Your task to perform on an android device: Clear the cart on costco.com. Image 0: 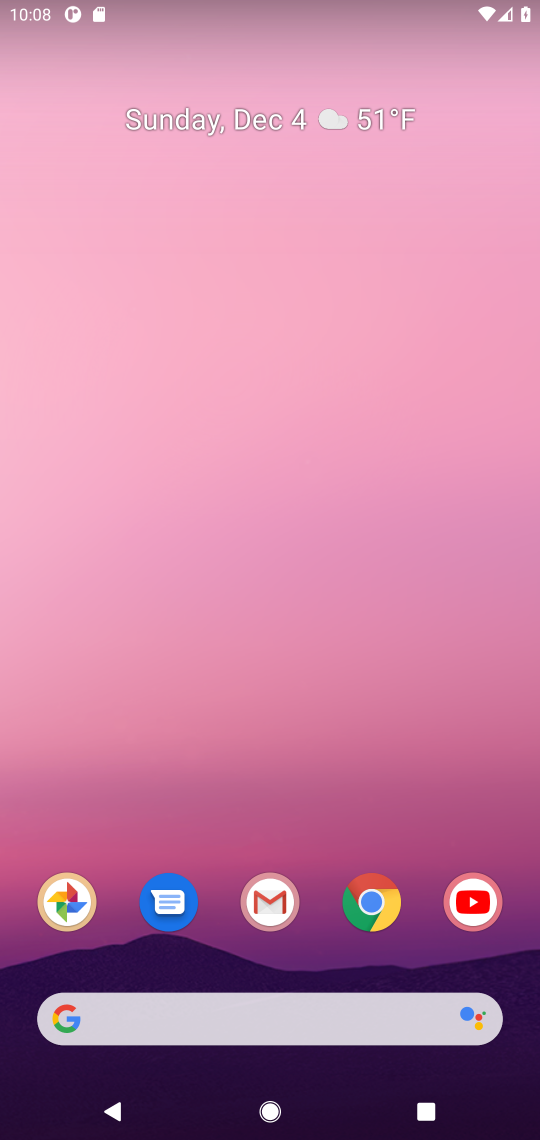
Step 0: click (351, 903)
Your task to perform on an android device: Clear the cart on costco.com. Image 1: 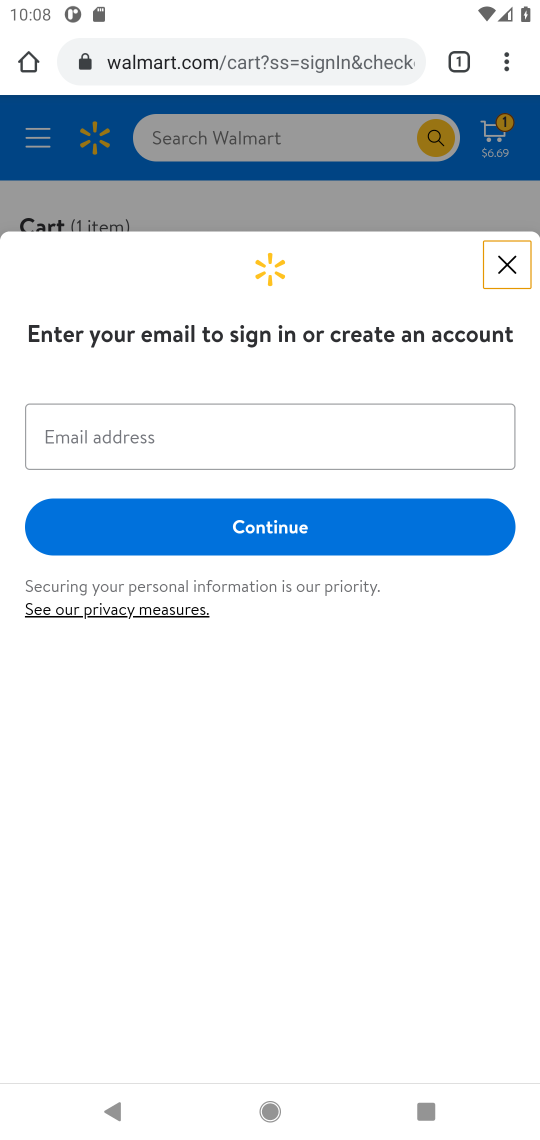
Step 1: click (244, 62)
Your task to perform on an android device: Clear the cart on costco.com. Image 2: 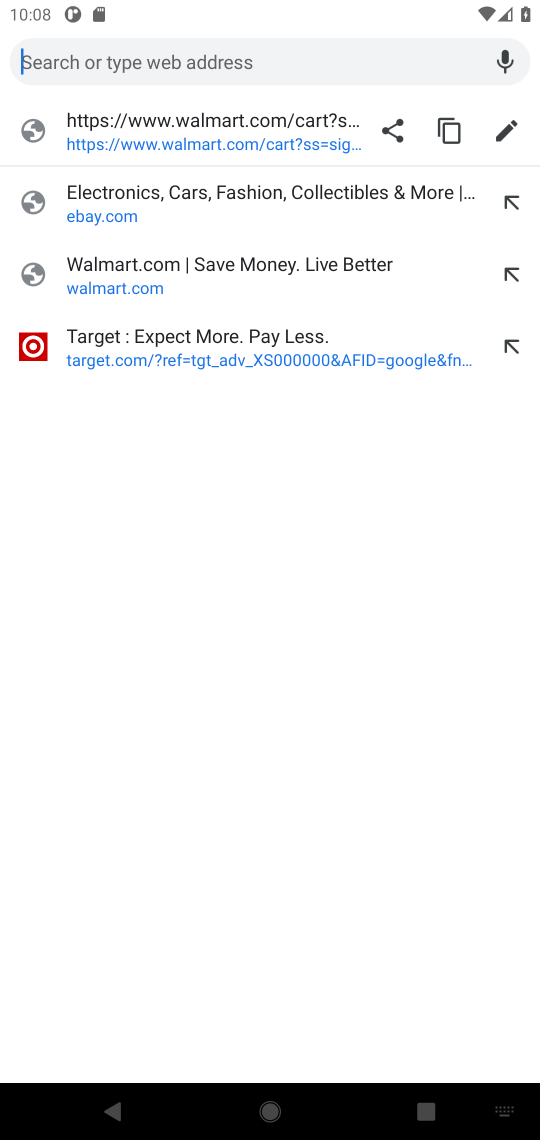
Step 2: type "costco"
Your task to perform on an android device: Clear the cart on costco.com. Image 3: 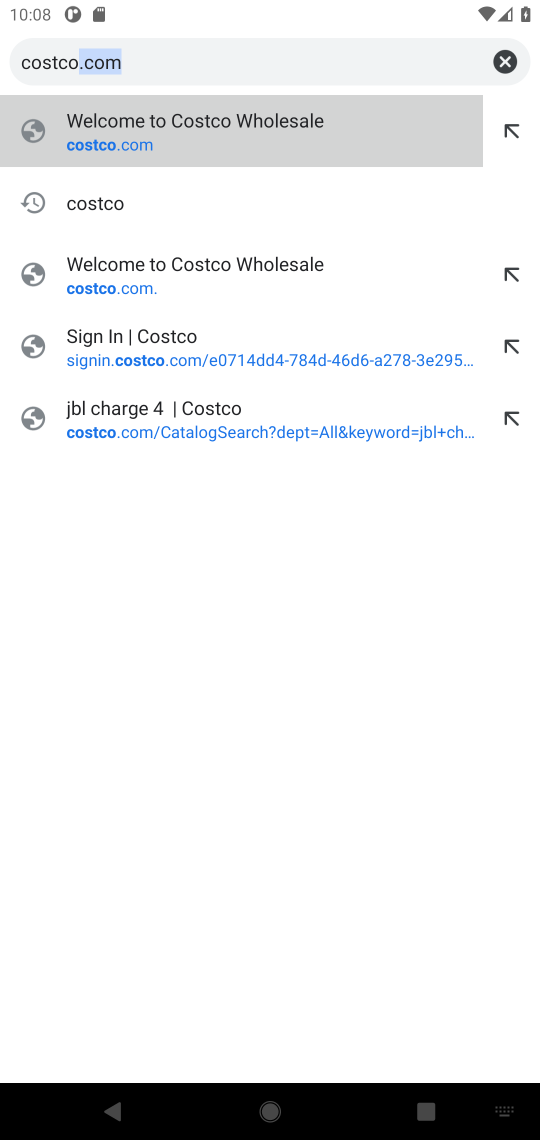
Step 3: click (91, 143)
Your task to perform on an android device: Clear the cart on costco.com. Image 4: 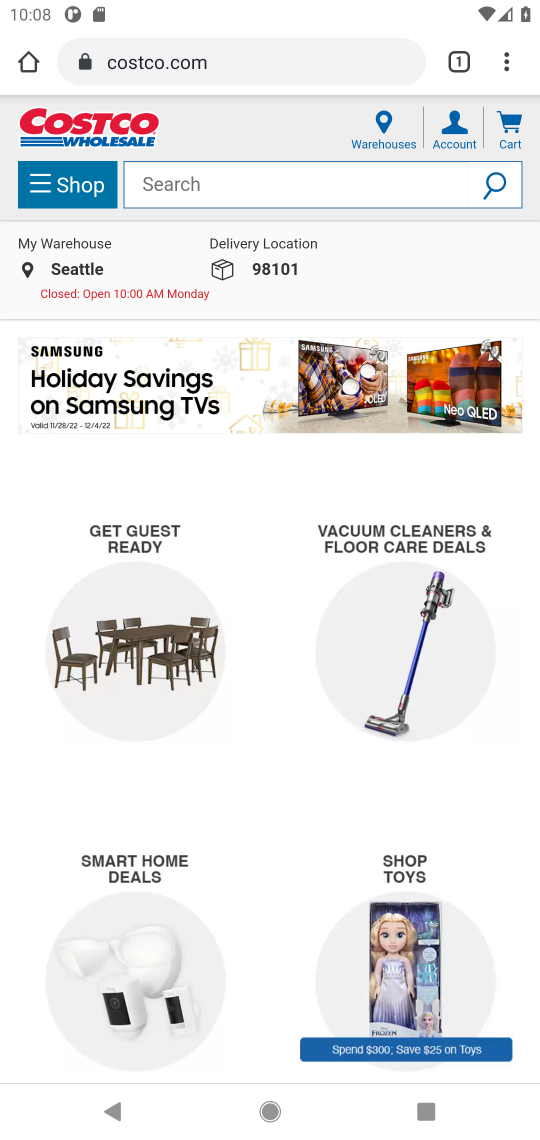
Step 4: click (511, 143)
Your task to perform on an android device: Clear the cart on costco.com. Image 5: 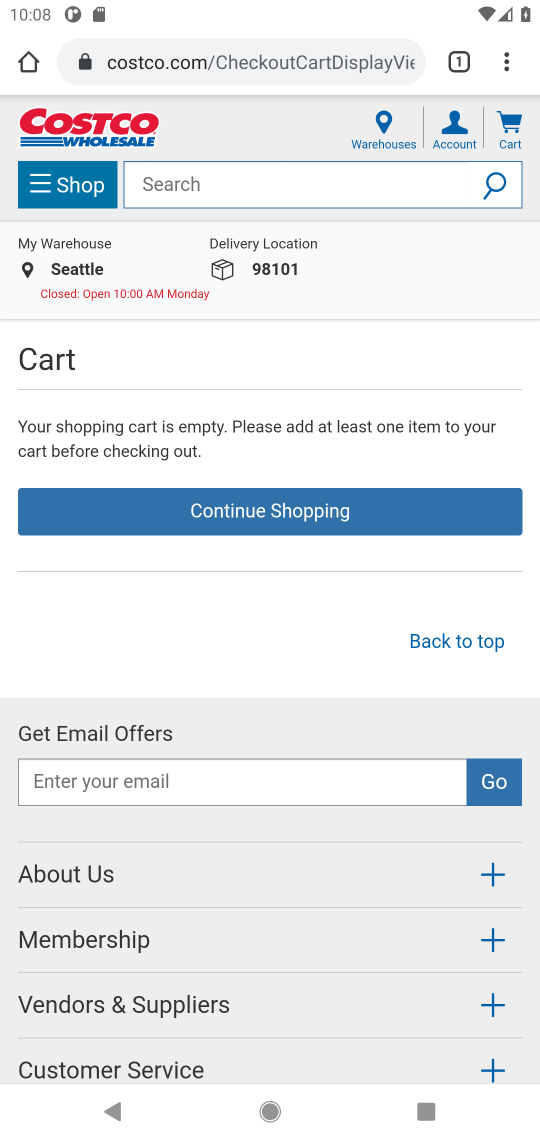
Step 5: task complete